Your task to perform on an android device: Set the phone to "Do not disturb". Image 0: 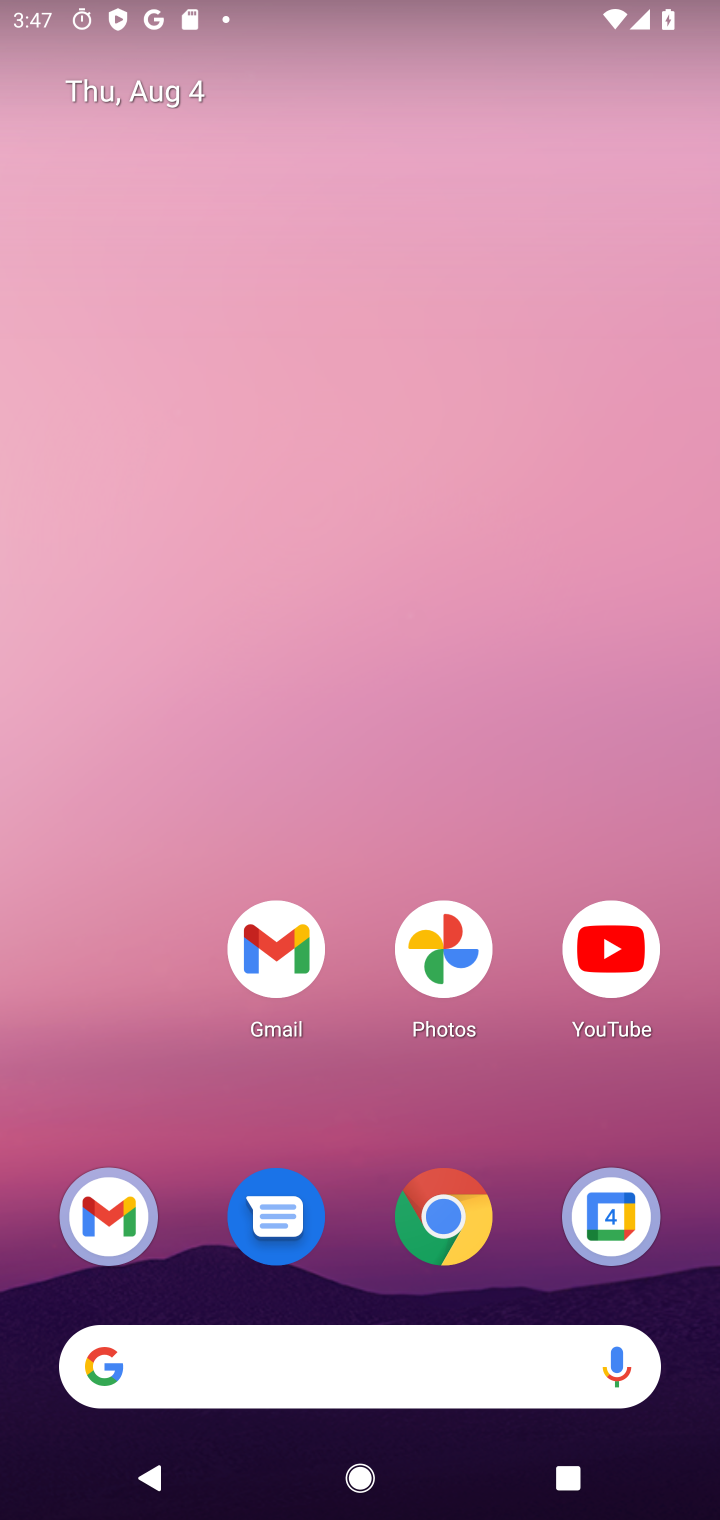
Step 0: drag from (331, 11) to (416, 1047)
Your task to perform on an android device: Set the phone to "Do not disturb". Image 1: 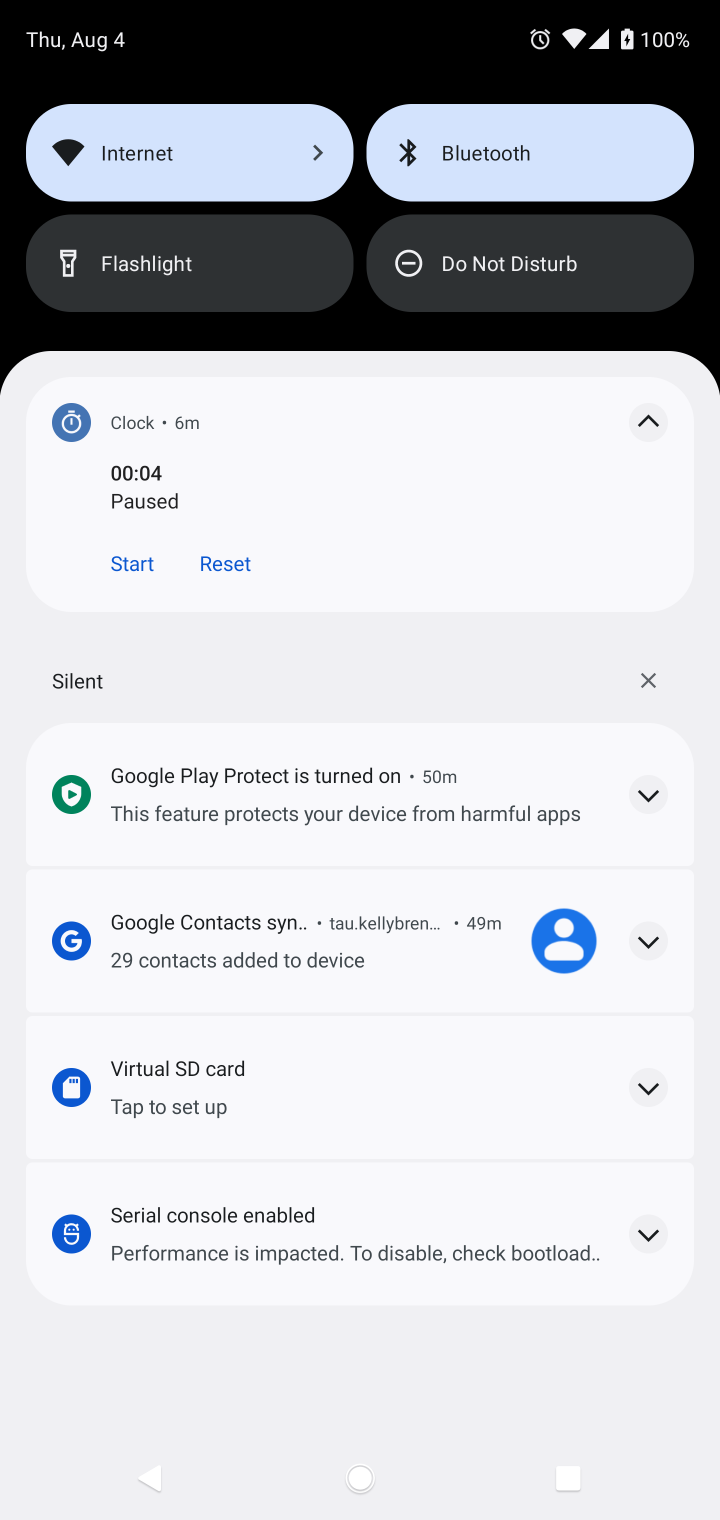
Step 1: drag from (371, 328) to (427, 1349)
Your task to perform on an android device: Set the phone to "Do not disturb". Image 2: 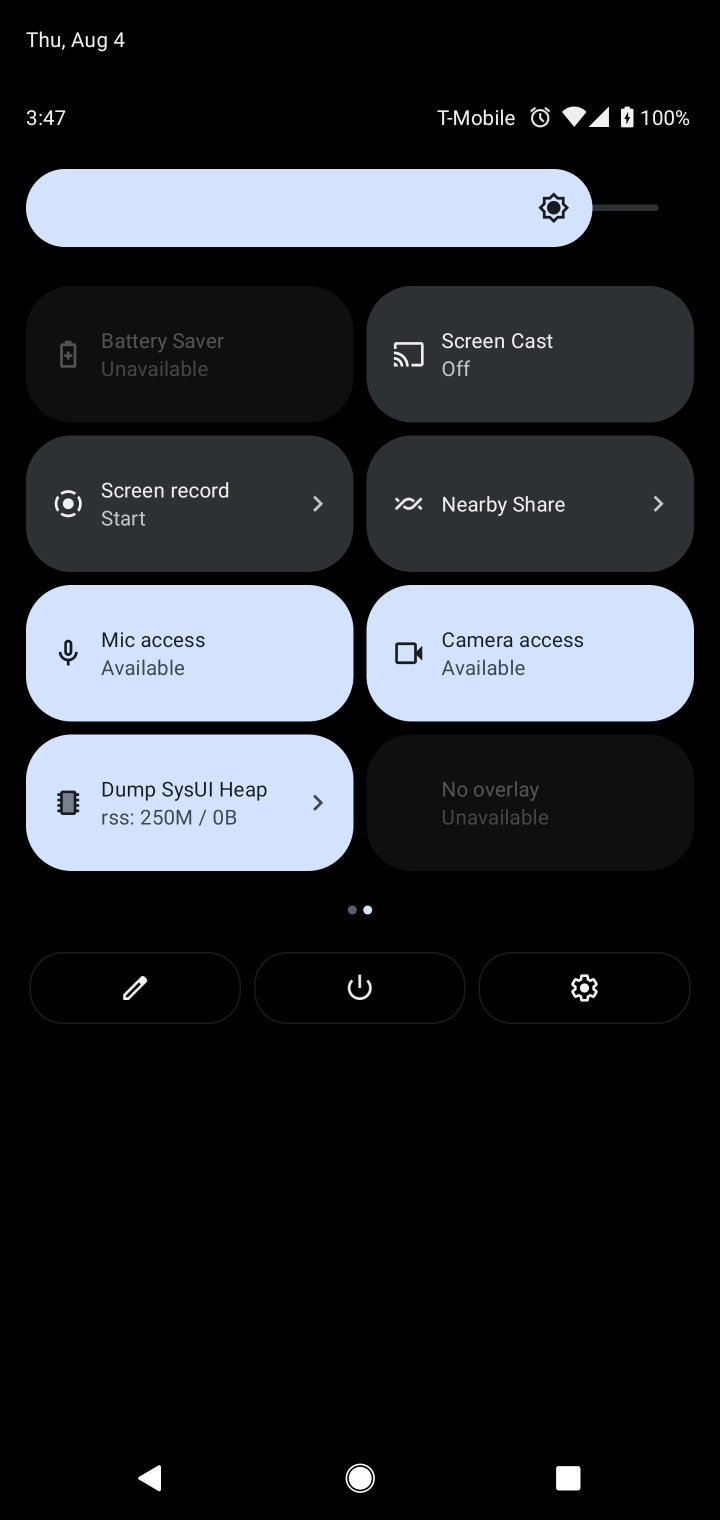
Step 2: drag from (95, 445) to (717, 436)
Your task to perform on an android device: Set the phone to "Do not disturb". Image 3: 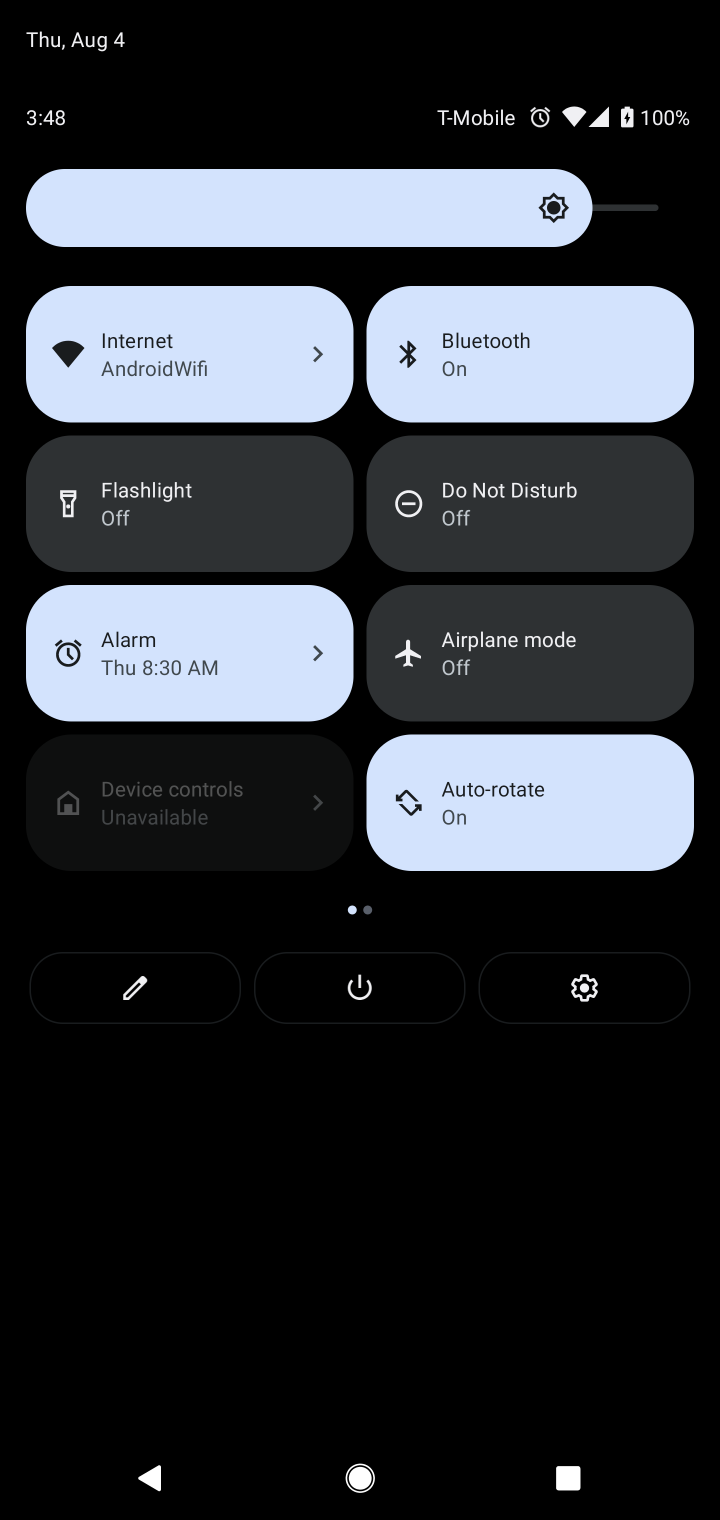
Step 3: click (467, 494)
Your task to perform on an android device: Set the phone to "Do not disturb". Image 4: 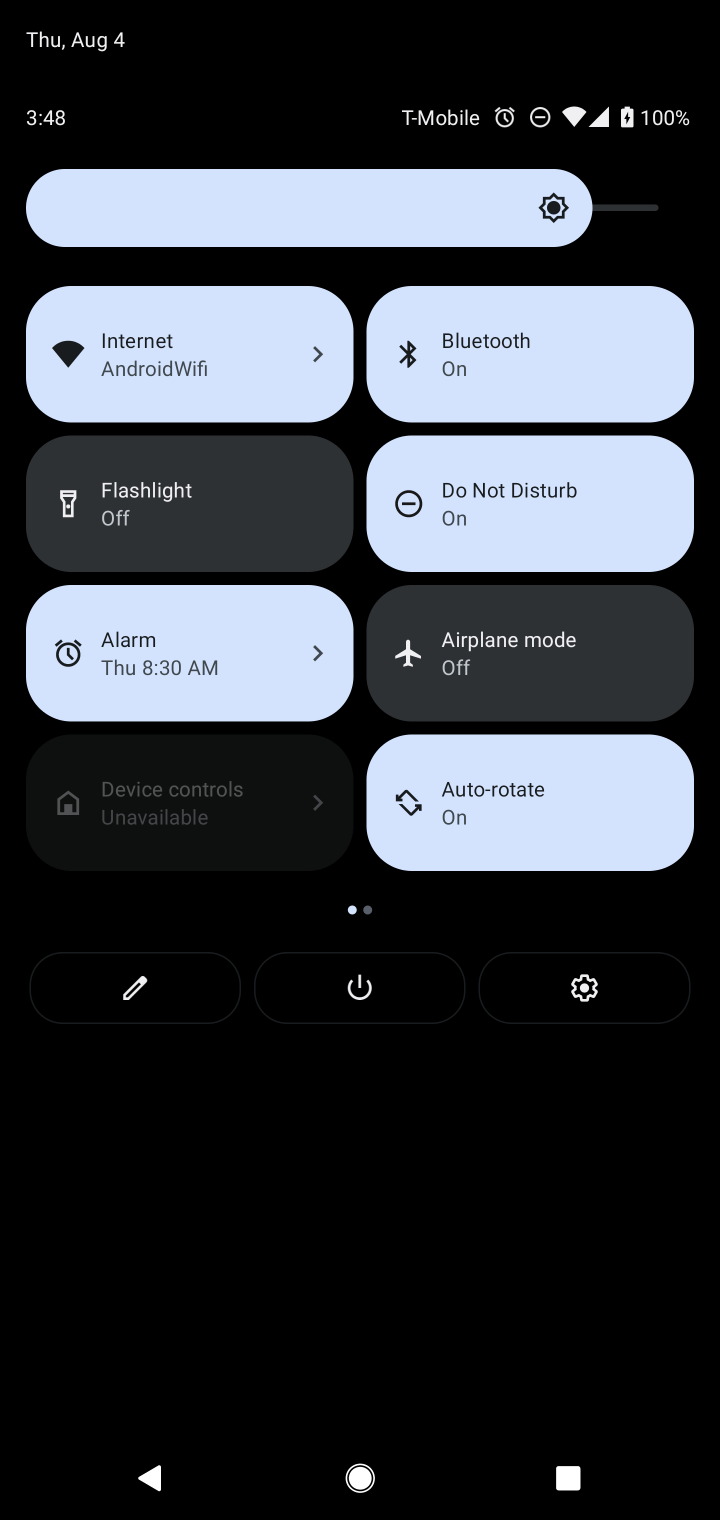
Step 4: task complete